Your task to perform on an android device: Show me popular videos on Youtube Image 0: 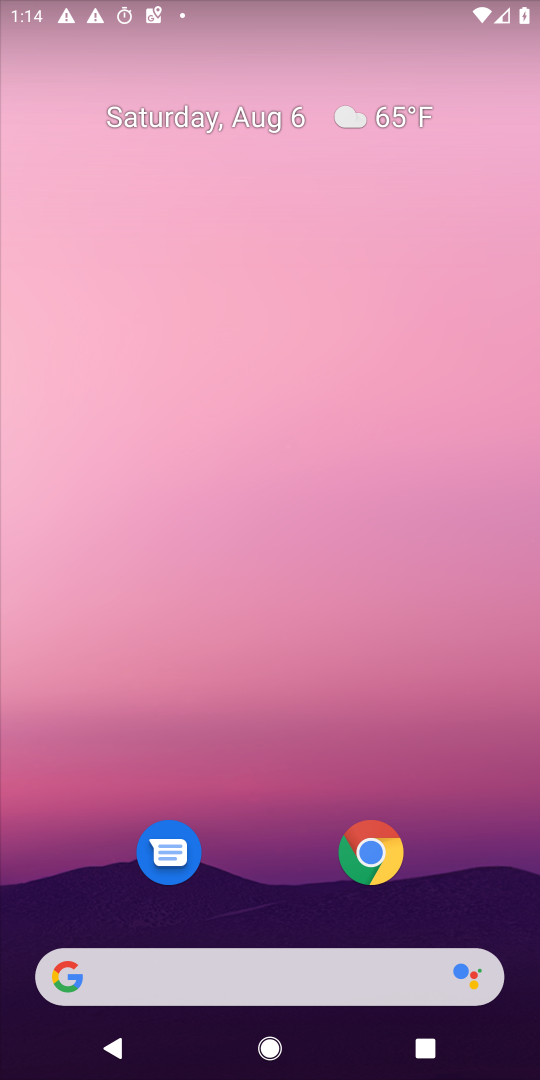
Step 0: drag from (397, 994) to (308, 245)
Your task to perform on an android device: Show me popular videos on Youtube Image 1: 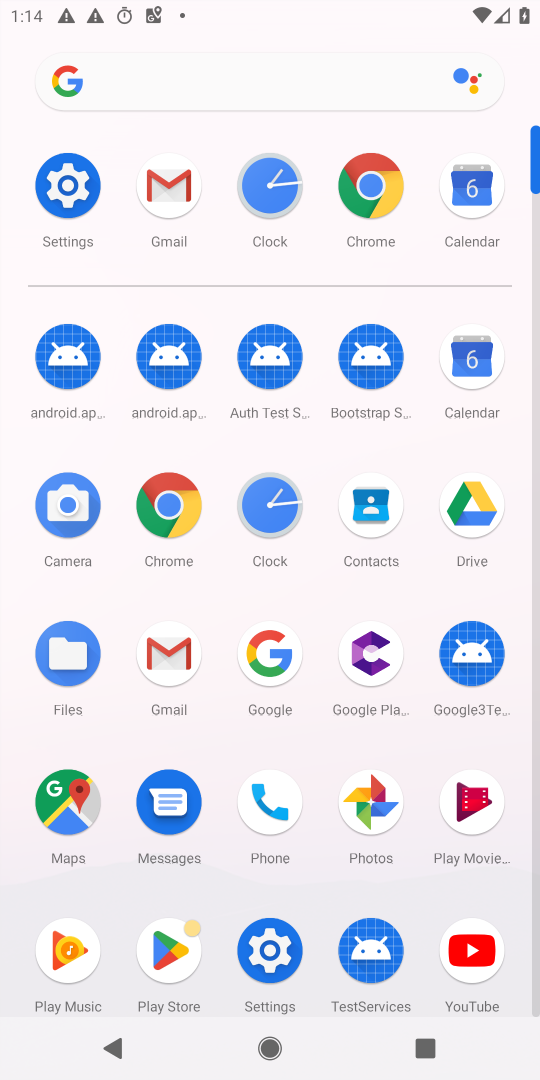
Step 1: click (477, 930)
Your task to perform on an android device: Show me popular videos on Youtube Image 2: 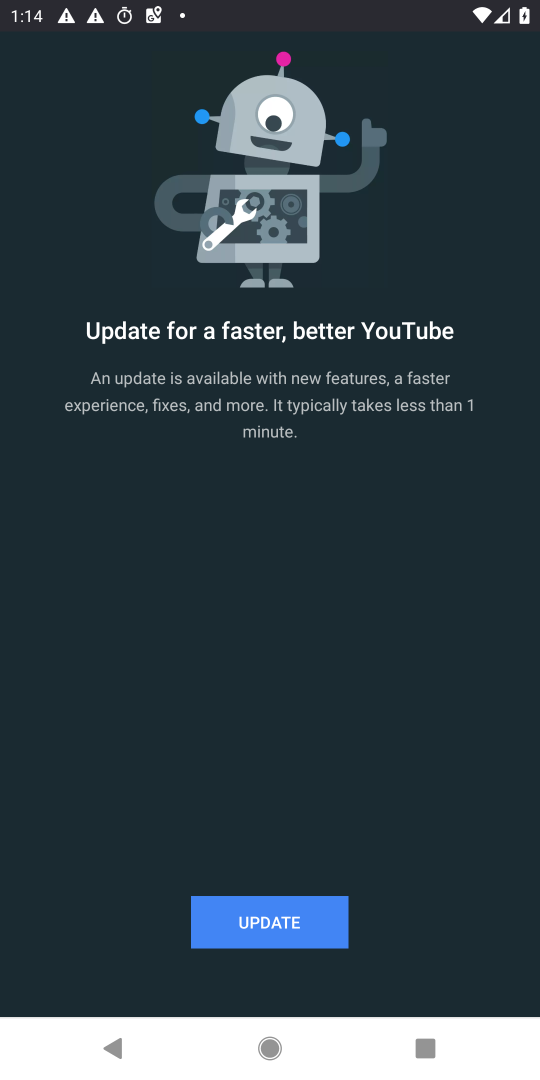
Step 2: click (251, 924)
Your task to perform on an android device: Show me popular videos on Youtube Image 3: 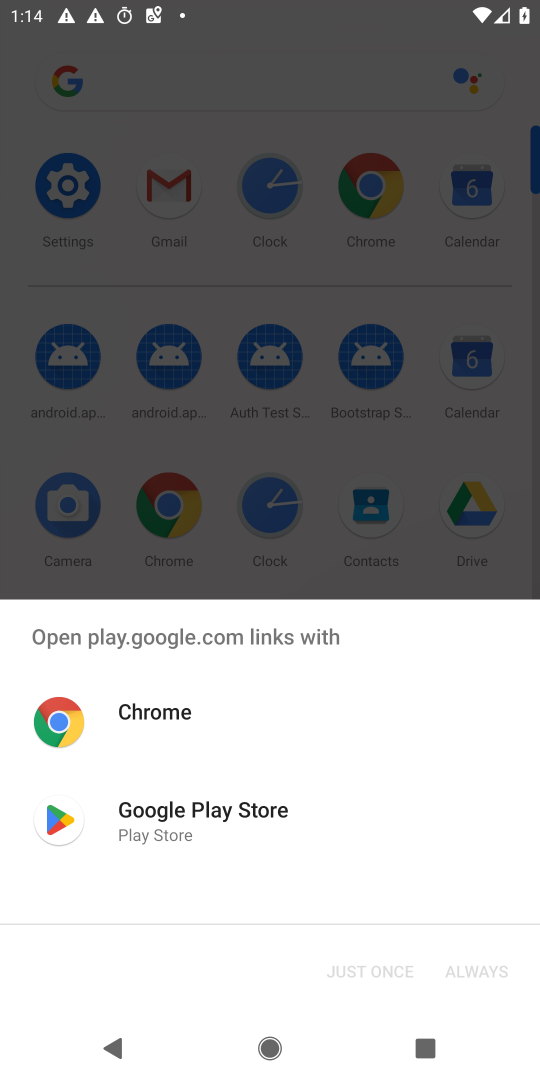
Step 3: click (228, 854)
Your task to perform on an android device: Show me popular videos on Youtube Image 4: 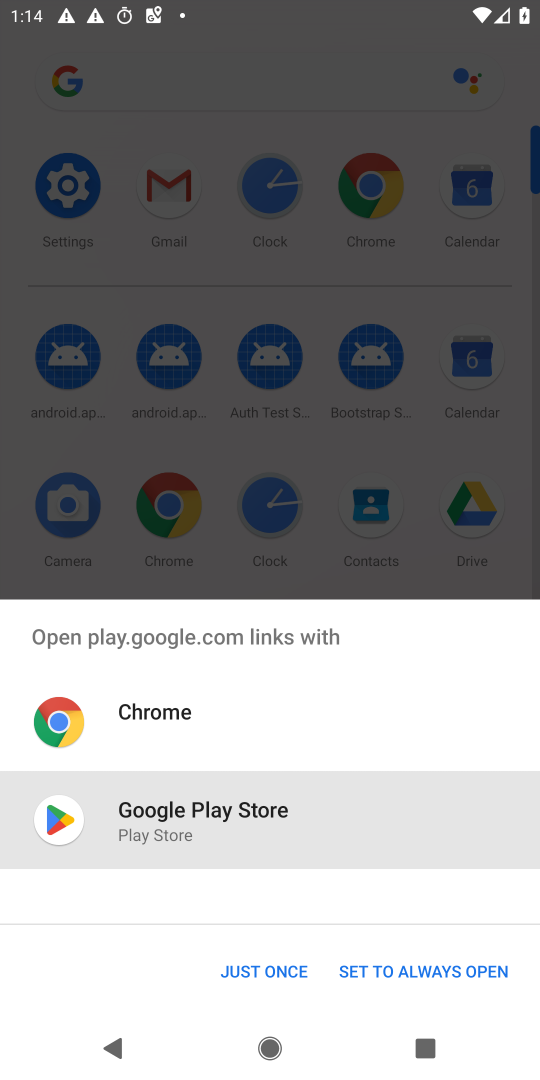
Step 4: click (258, 958)
Your task to perform on an android device: Show me popular videos on Youtube Image 5: 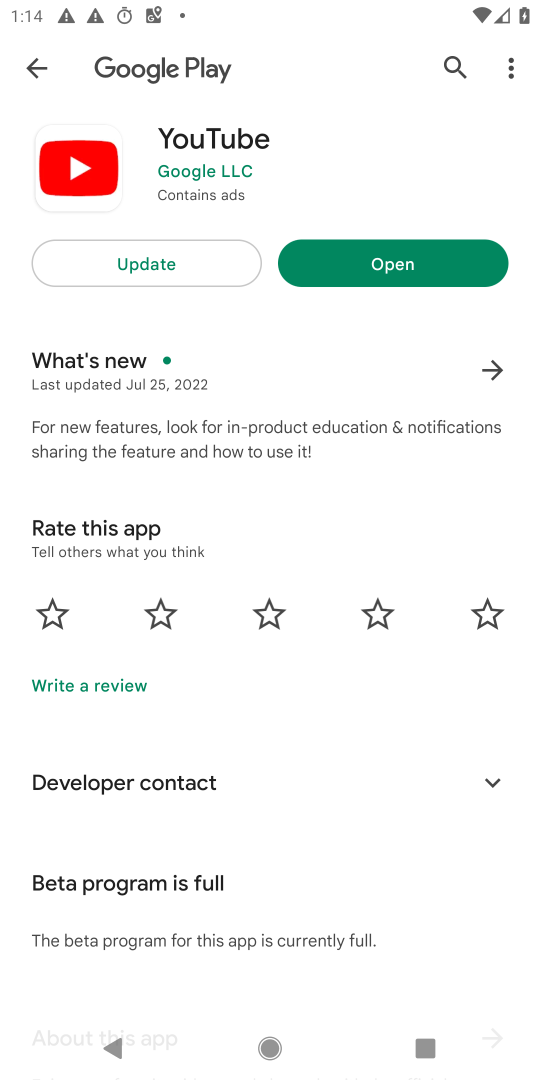
Step 5: click (459, 70)
Your task to perform on an android device: Show me popular videos on Youtube Image 6: 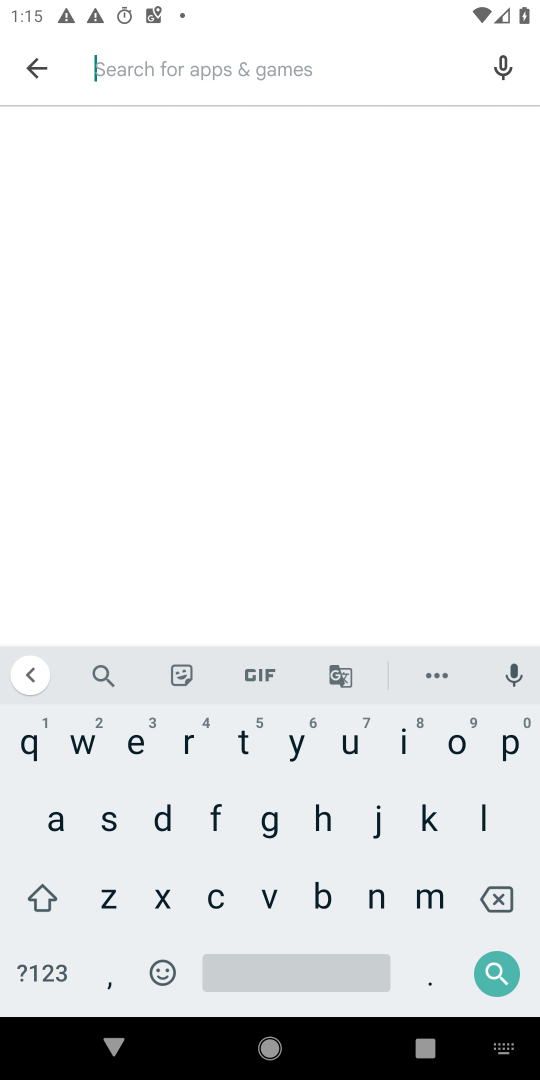
Step 6: type "popular videos"
Your task to perform on an android device: Show me popular videos on Youtube Image 7: 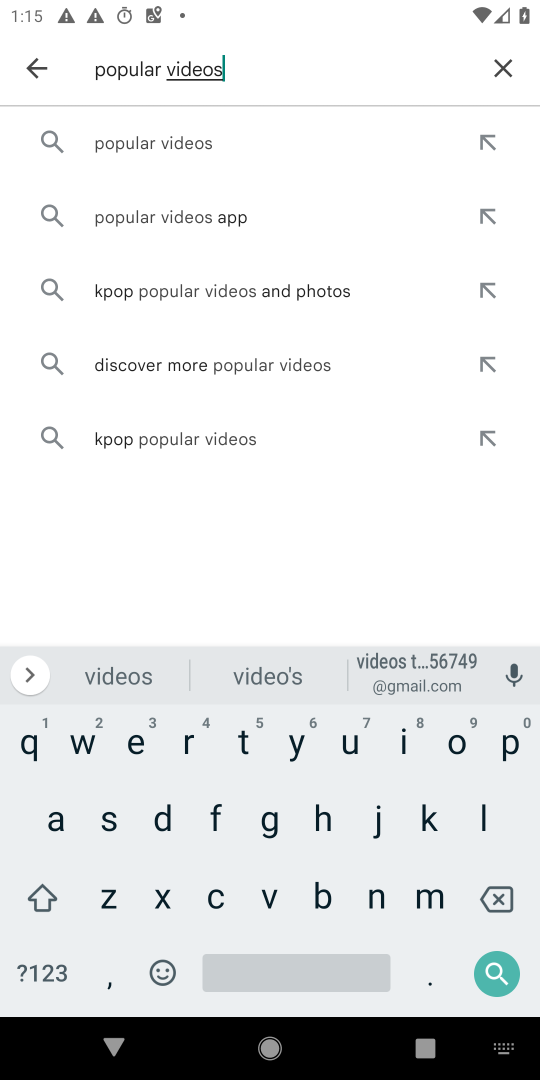
Step 7: click (187, 147)
Your task to perform on an android device: Show me popular videos on Youtube Image 8: 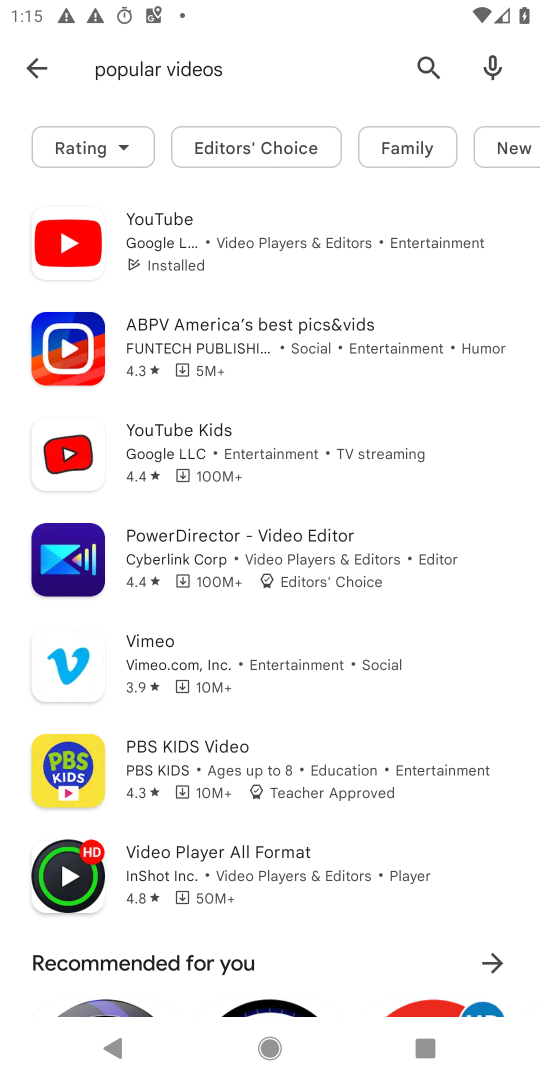
Step 8: press home button
Your task to perform on an android device: Show me popular videos on Youtube Image 9: 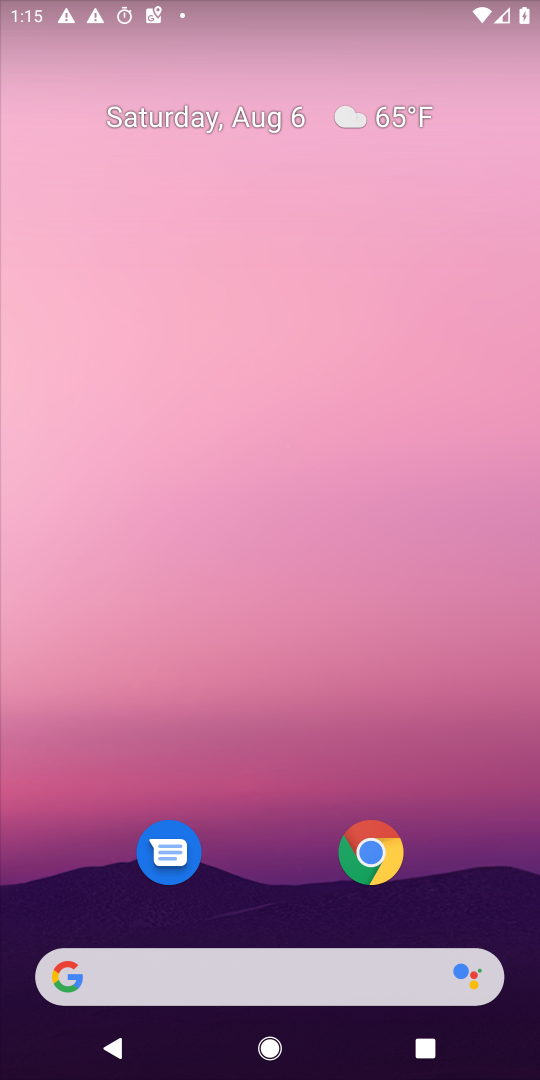
Step 9: drag from (417, 962) to (380, 285)
Your task to perform on an android device: Show me popular videos on Youtube Image 10: 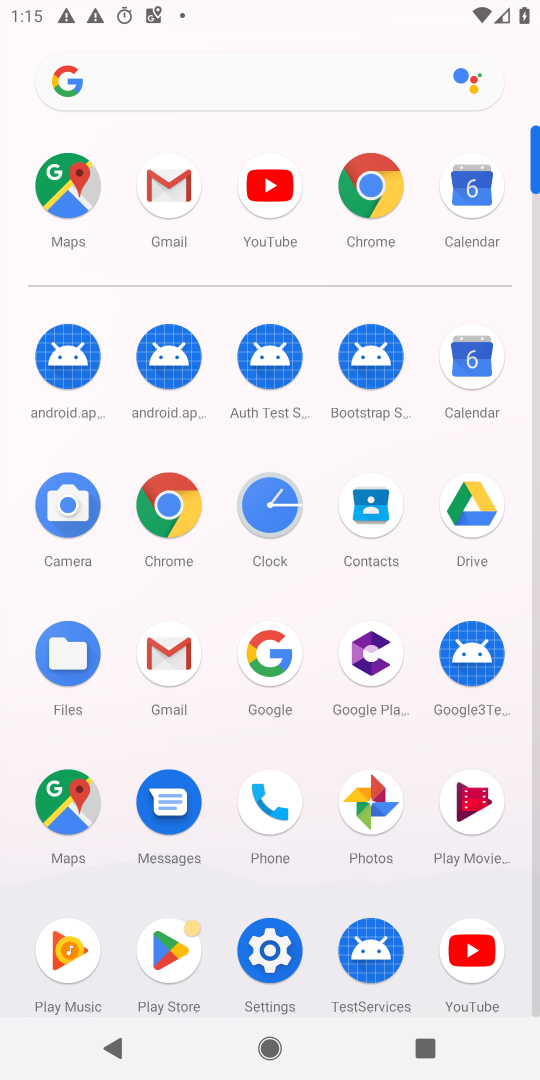
Step 10: click (284, 216)
Your task to perform on an android device: Show me popular videos on Youtube Image 11: 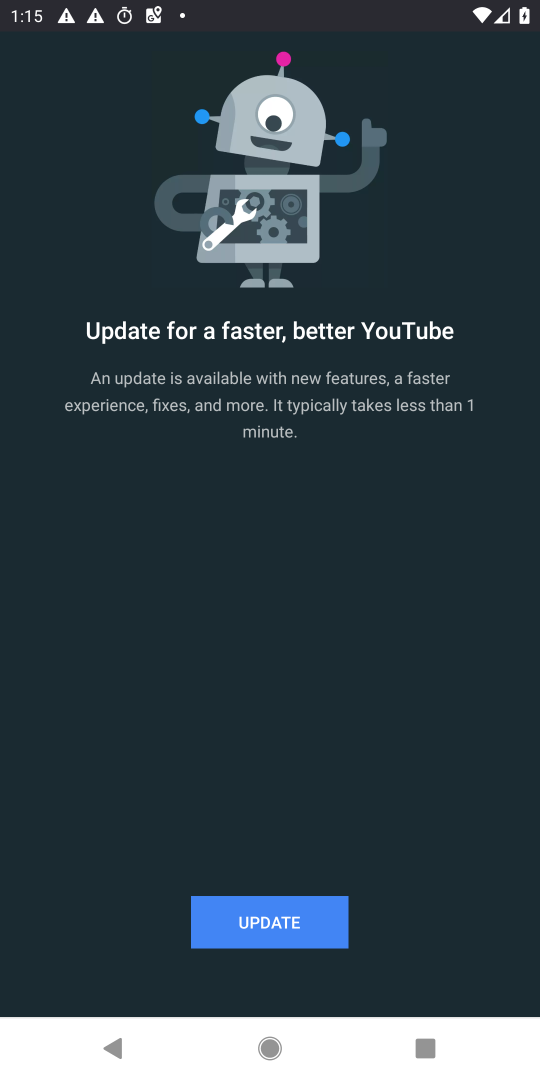
Step 11: click (278, 910)
Your task to perform on an android device: Show me popular videos on Youtube Image 12: 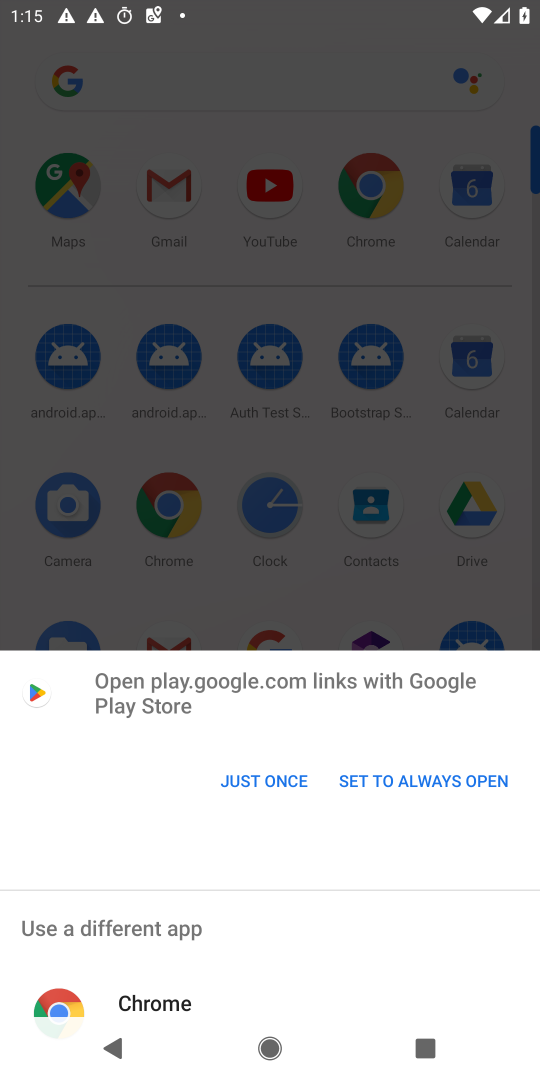
Step 12: click (237, 779)
Your task to perform on an android device: Show me popular videos on Youtube Image 13: 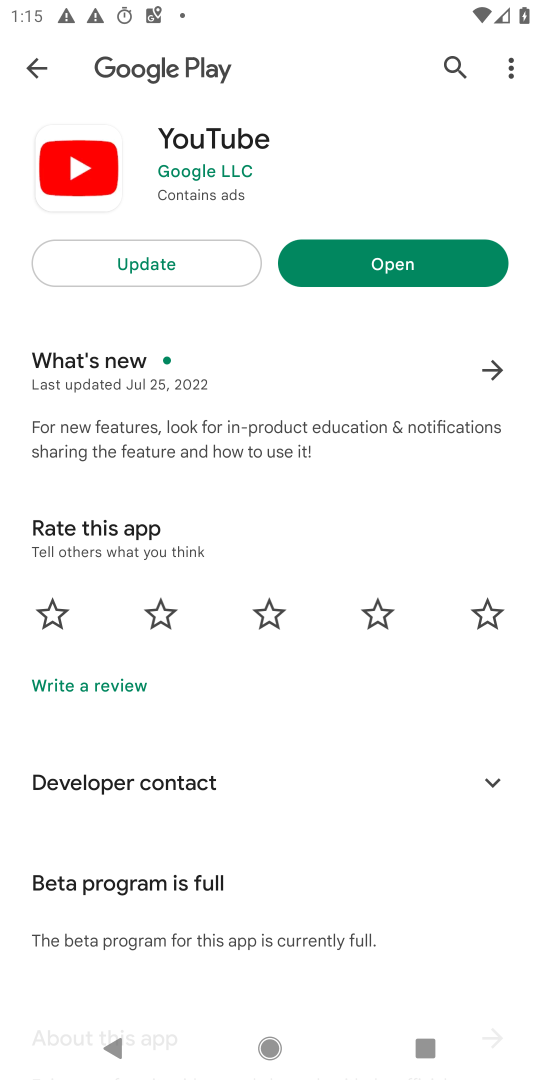
Step 13: click (116, 266)
Your task to perform on an android device: Show me popular videos on Youtube Image 14: 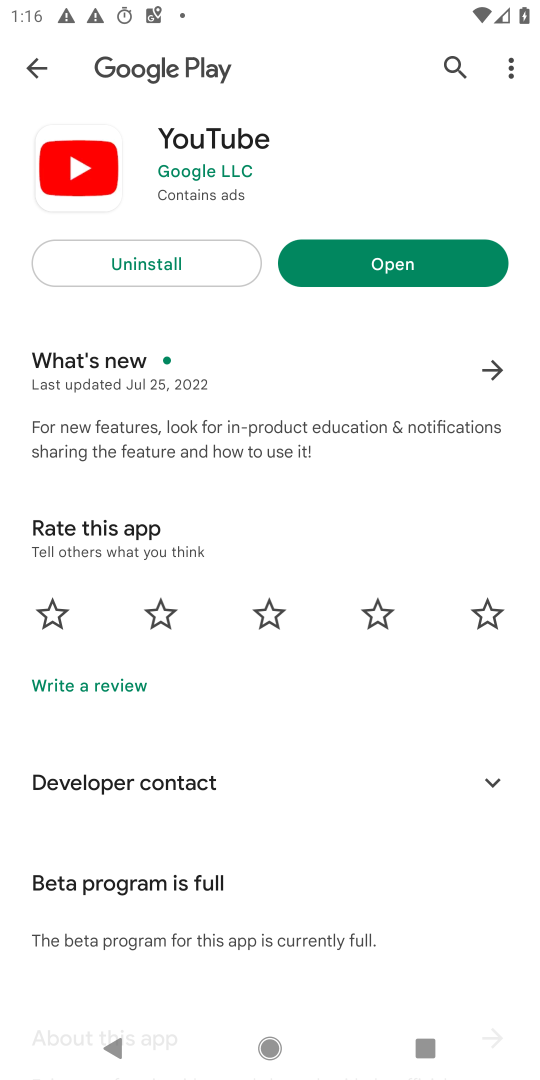
Step 14: click (382, 264)
Your task to perform on an android device: Show me popular videos on Youtube Image 15: 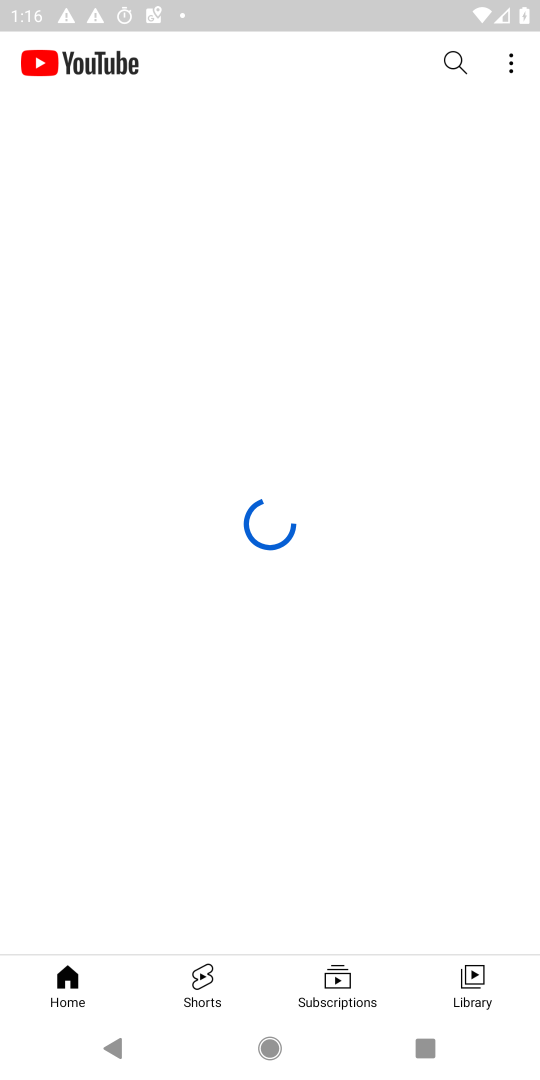
Step 15: click (453, 49)
Your task to perform on an android device: Show me popular videos on Youtube Image 16: 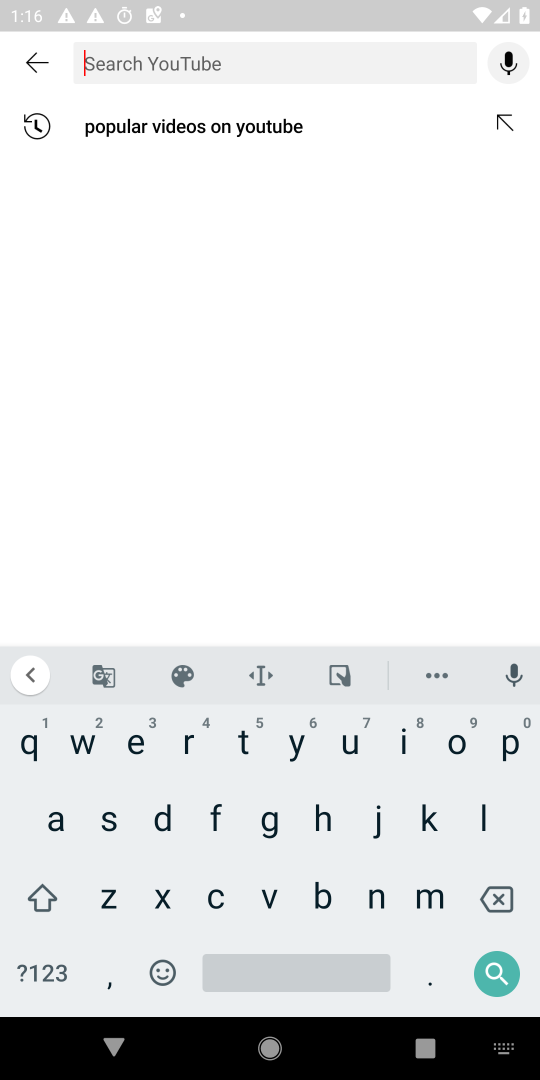
Step 16: click (214, 124)
Your task to perform on an android device: Show me popular videos on Youtube Image 17: 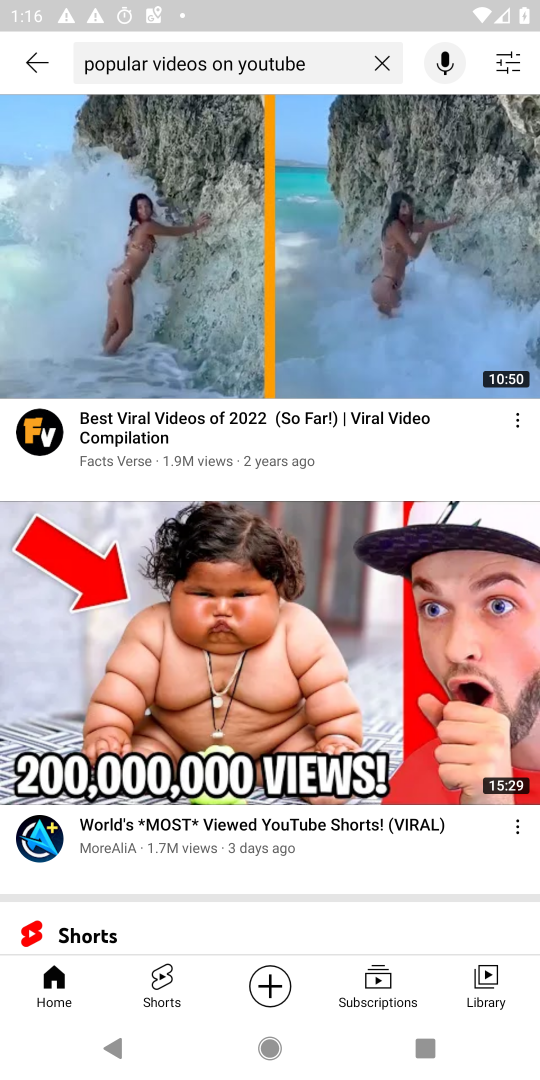
Step 17: task complete